Your task to perform on an android device: turn off notifications settings in the gmail app Image 0: 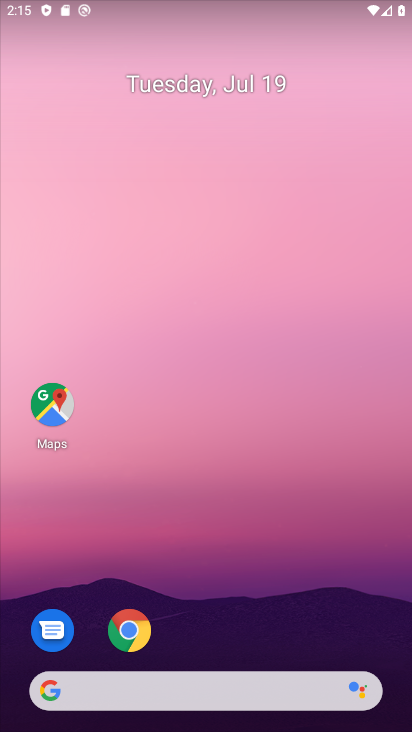
Step 0: drag from (262, 615) to (255, 37)
Your task to perform on an android device: turn off notifications settings in the gmail app Image 1: 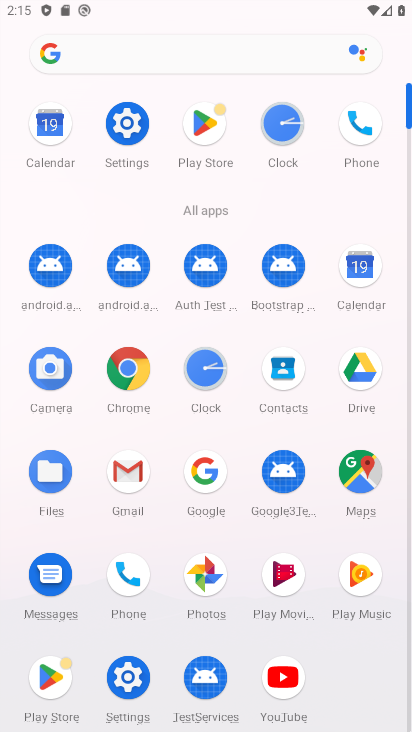
Step 1: click (128, 473)
Your task to perform on an android device: turn off notifications settings in the gmail app Image 2: 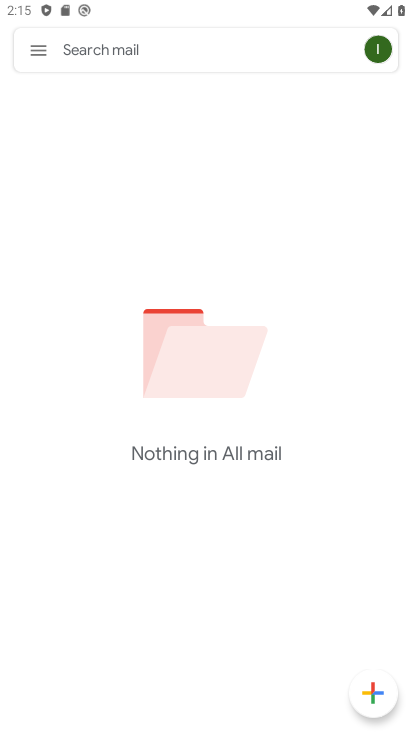
Step 2: click (42, 46)
Your task to perform on an android device: turn off notifications settings in the gmail app Image 3: 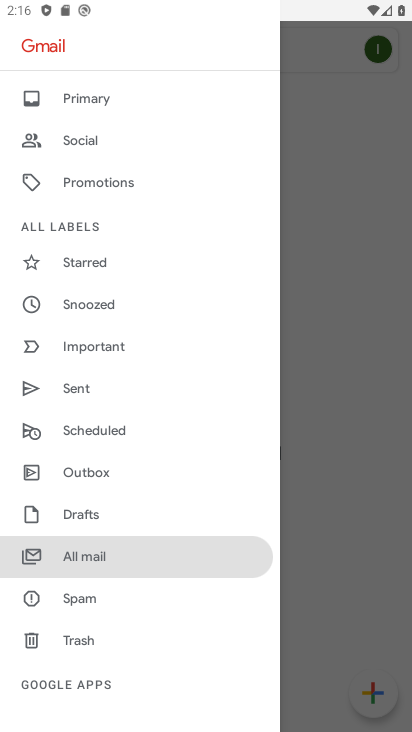
Step 3: drag from (147, 432) to (150, 201)
Your task to perform on an android device: turn off notifications settings in the gmail app Image 4: 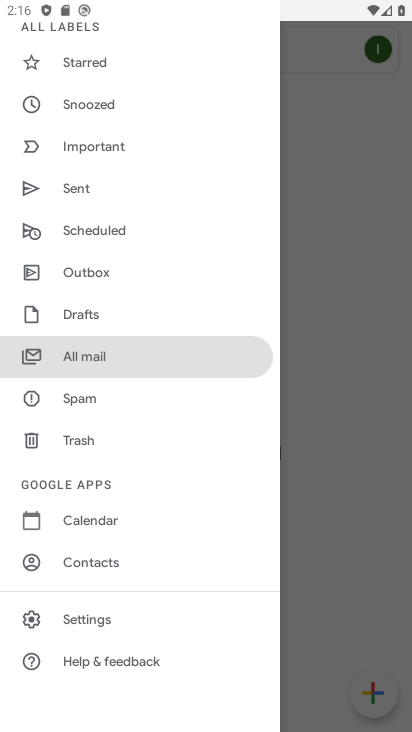
Step 4: click (97, 617)
Your task to perform on an android device: turn off notifications settings in the gmail app Image 5: 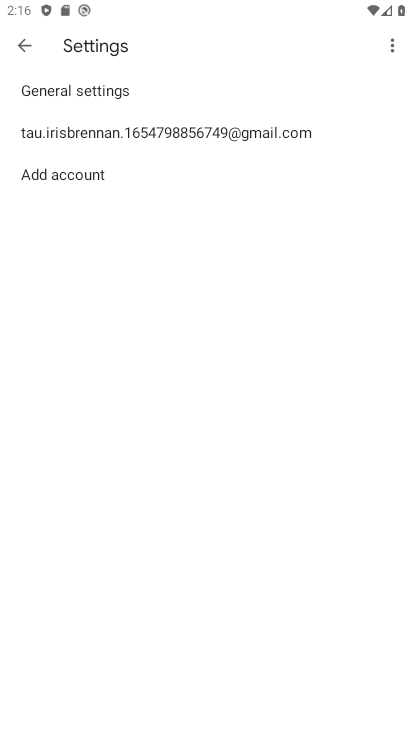
Step 5: click (124, 87)
Your task to perform on an android device: turn off notifications settings in the gmail app Image 6: 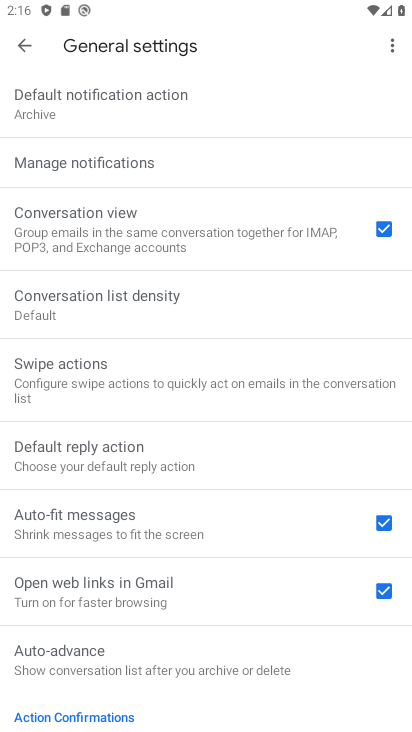
Step 6: click (138, 150)
Your task to perform on an android device: turn off notifications settings in the gmail app Image 7: 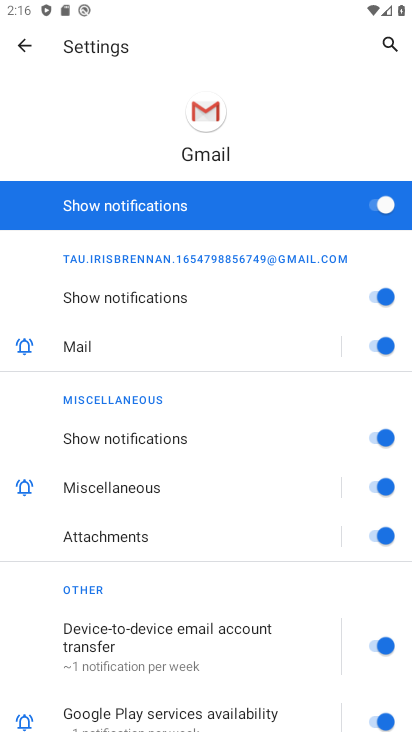
Step 7: click (381, 210)
Your task to perform on an android device: turn off notifications settings in the gmail app Image 8: 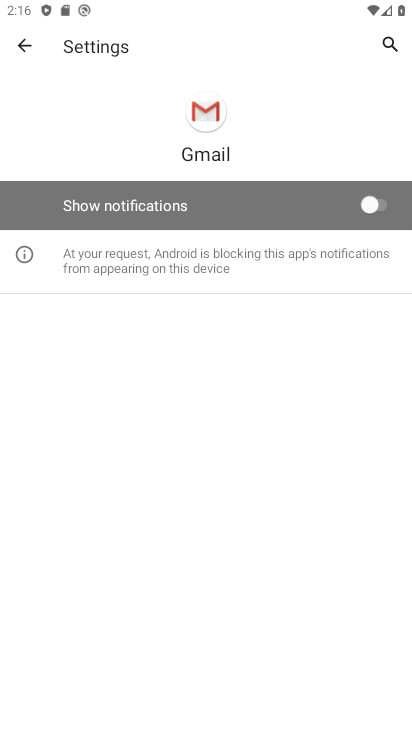
Step 8: task complete